Your task to perform on an android device: set the stopwatch Image 0: 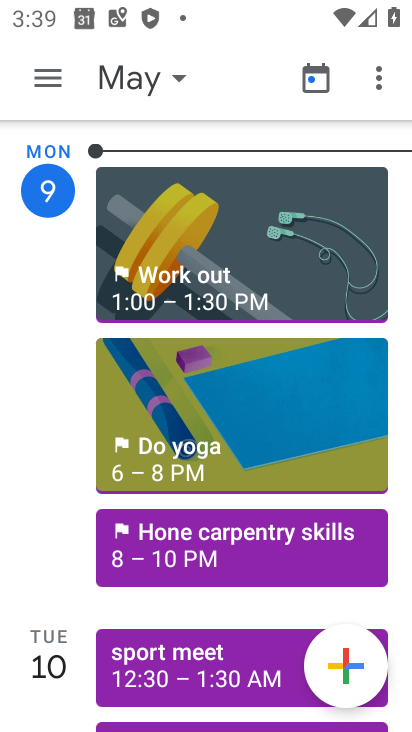
Step 0: press home button
Your task to perform on an android device: set the stopwatch Image 1: 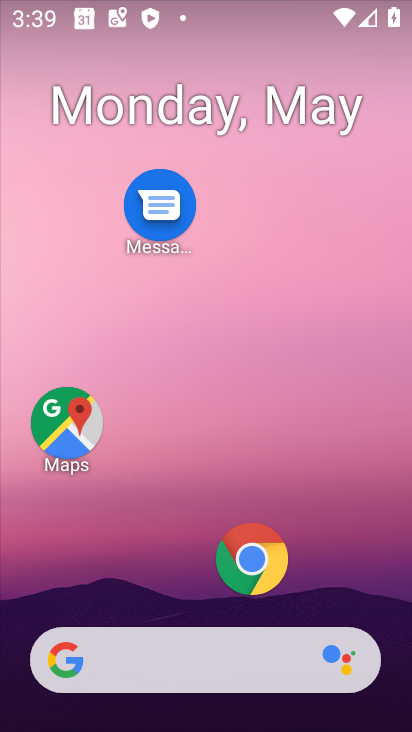
Step 1: drag from (144, 576) to (173, 163)
Your task to perform on an android device: set the stopwatch Image 2: 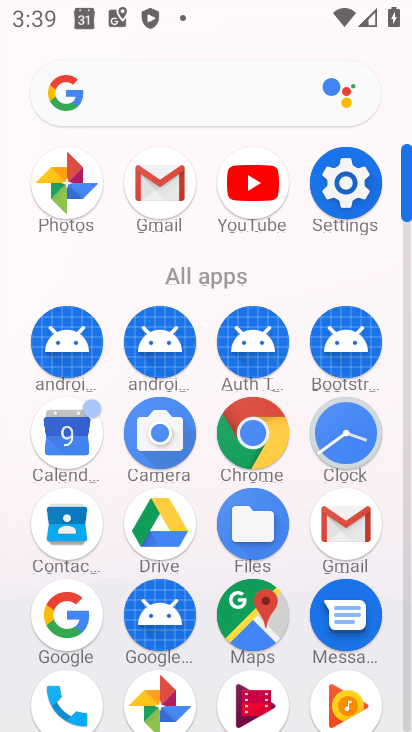
Step 2: click (348, 430)
Your task to perform on an android device: set the stopwatch Image 3: 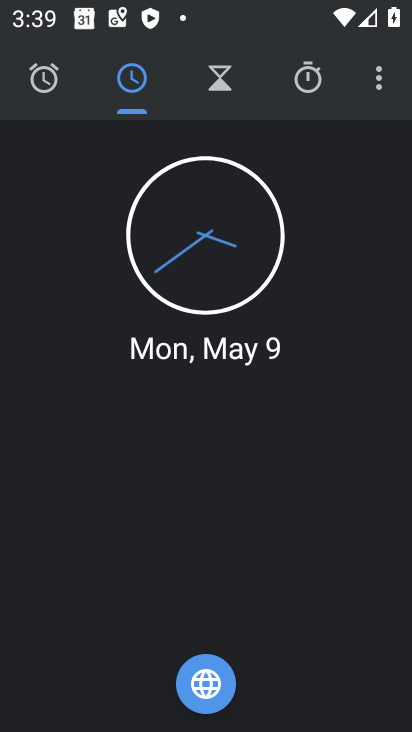
Step 3: click (298, 86)
Your task to perform on an android device: set the stopwatch Image 4: 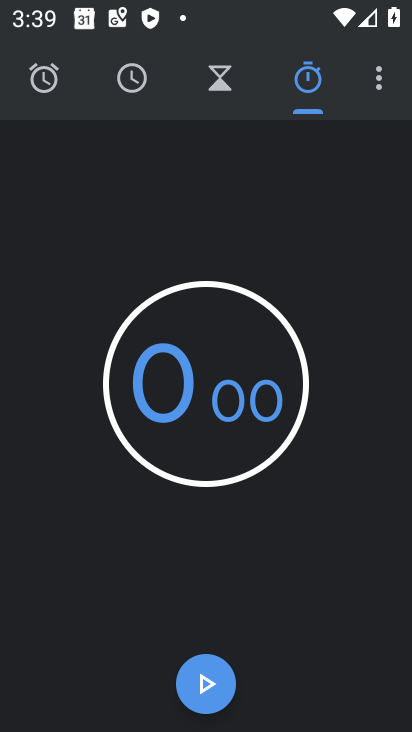
Step 4: click (229, 356)
Your task to perform on an android device: set the stopwatch Image 5: 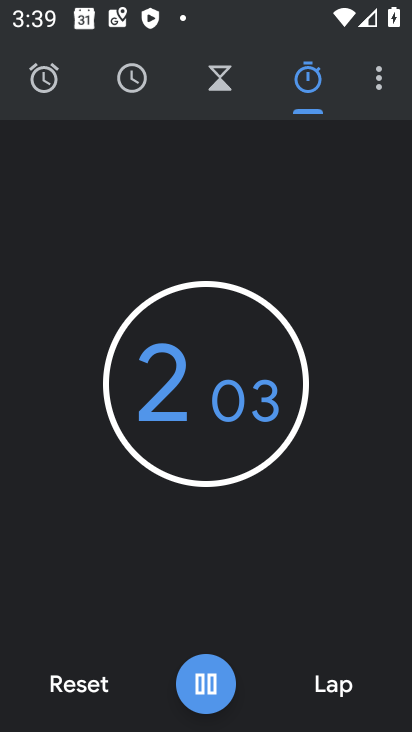
Step 5: task complete